Your task to perform on an android device: toggle pop-ups in chrome Image 0: 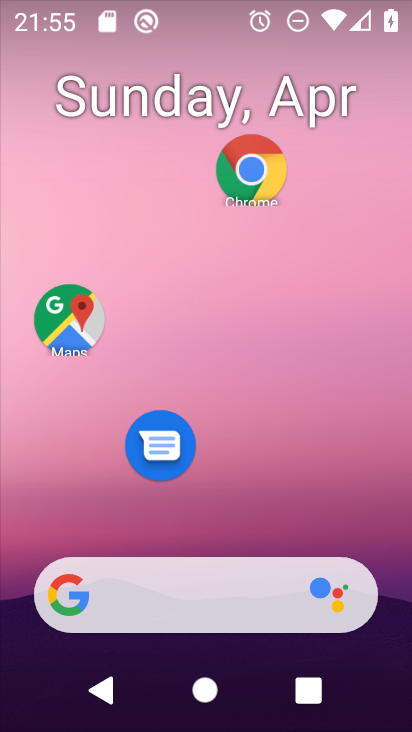
Step 0: drag from (246, 494) to (230, 42)
Your task to perform on an android device: toggle pop-ups in chrome Image 1: 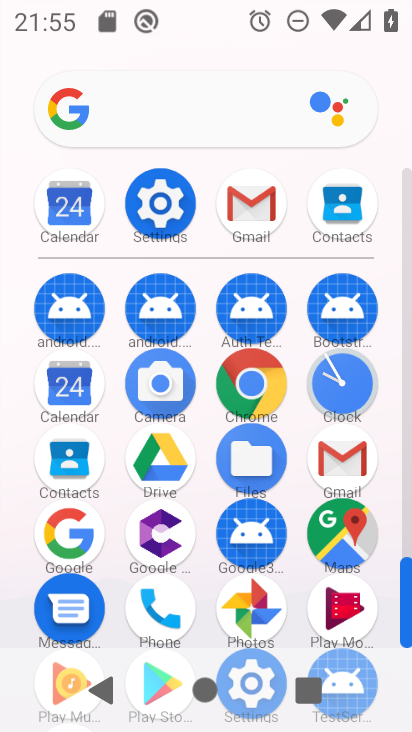
Step 1: drag from (206, 416) to (204, 274)
Your task to perform on an android device: toggle pop-ups in chrome Image 2: 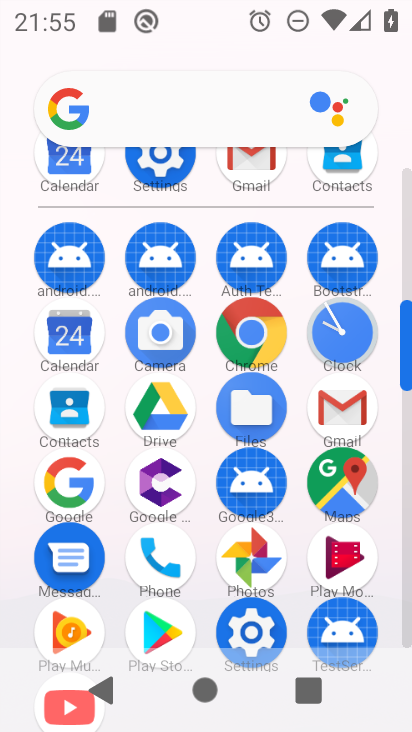
Step 2: click (256, 327)
Your task to perform on an android device: toggle pop-ups in chrome Image 3: 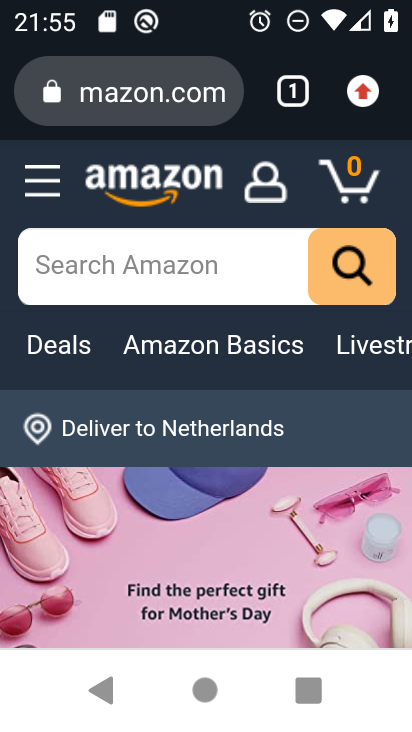
Step 3: click (363, 94)
Your task to perform on an android device: toggle pop-ups in chrome Image 4: 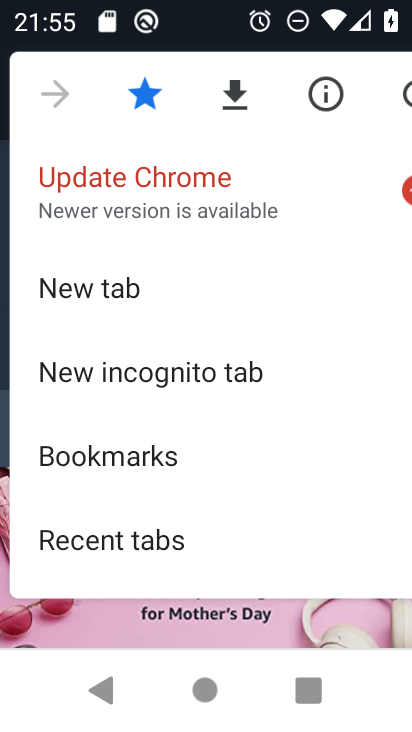
Step 4: drag from (234, 529) to (256, 35)
Your task to perform on an android device: toggle pop-ups in chrome Image 5: 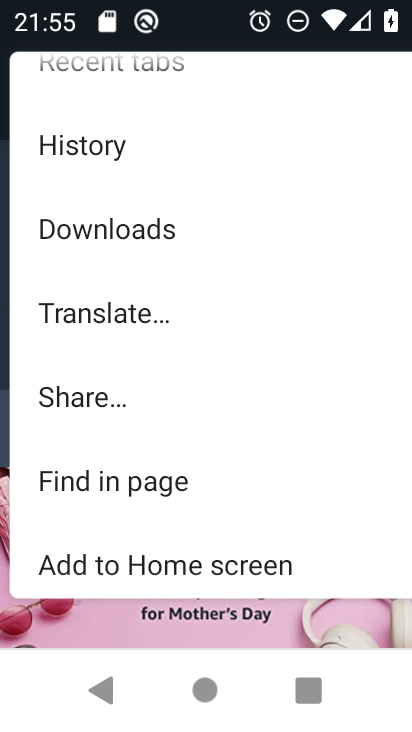
Step 5: drag from (173, 536) to (218, 167)
Your task to perform on an android device: toggle pop-ups in chrome Image 6: 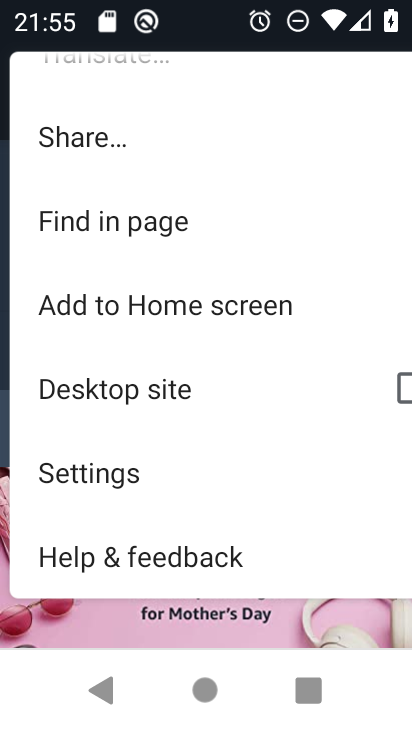
Step 6: click (161, 467)
Your task to perform on an android device: toggle pop-ups in chrome Image 7: 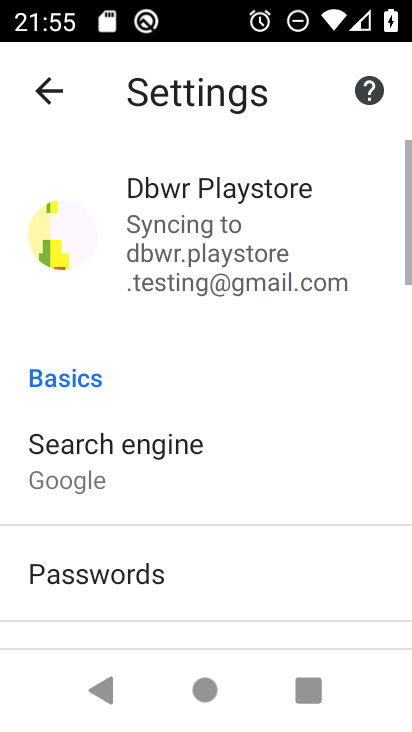
Step 7: drag from (242, 572) to (224, 102)
Your task to perform on an android device: toggle pop-ups in chrome Image 8: 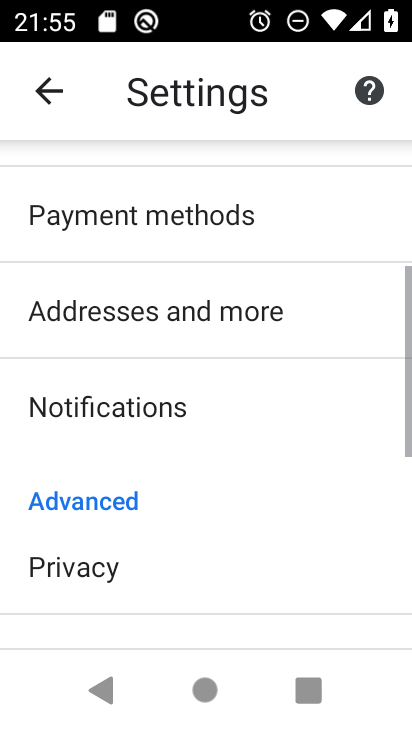
Step 8: drag from (231, 551) to (263, 205)
Your task to perform on an android device: toggle pop-ups in chrome Image 9: 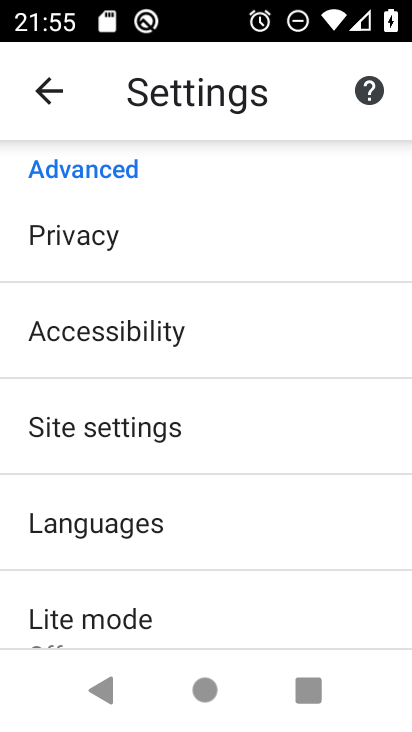
Step 9: click (89, 430)
Your task to perform on an android device: toggle pop-ups in chrome Image 10: 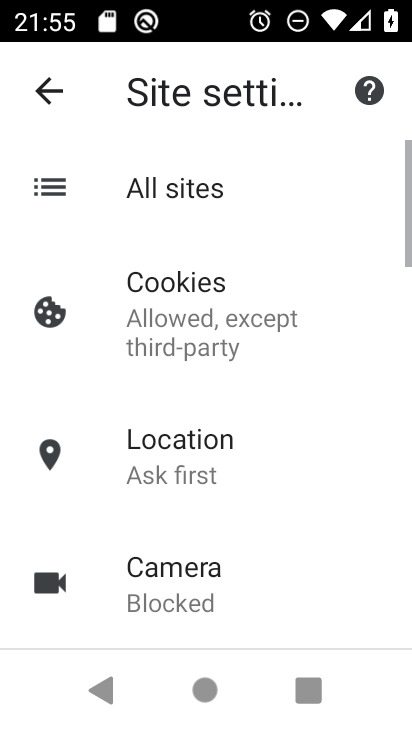
Step 10: drag from (261, 504) to (271, 104)
Your task to perform on an android device: toggle pop-ups in chrome Image 11: 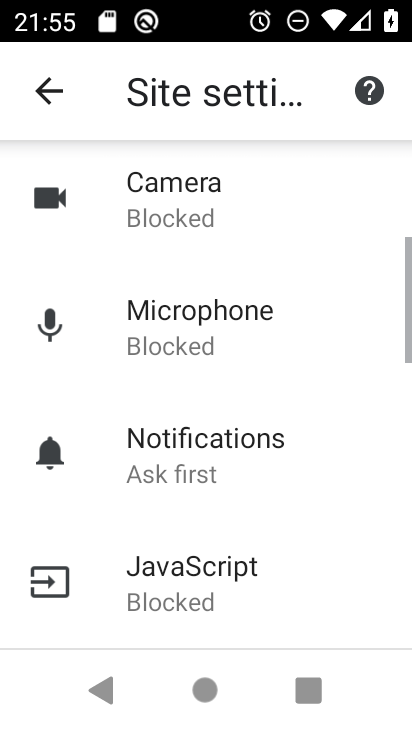
Step 11: drag from (244, 545) to (267, 227)
Your task to perform on an android device: toggle pop-ups in chrome Image 12: 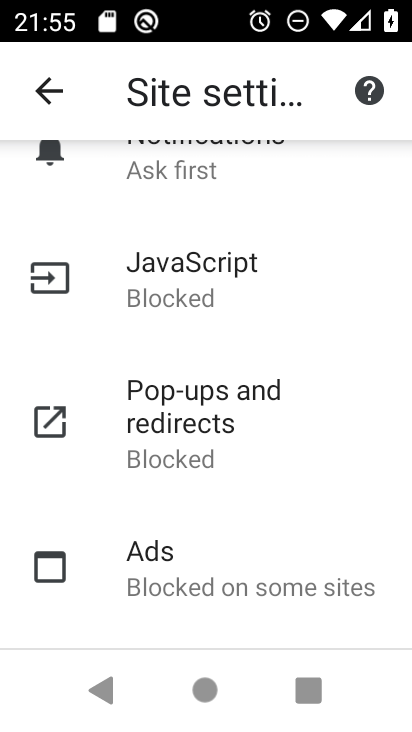
Step 12: click (196, 400)
Your task to perform on an android device: toggle pop-ups in chrome Image 13: 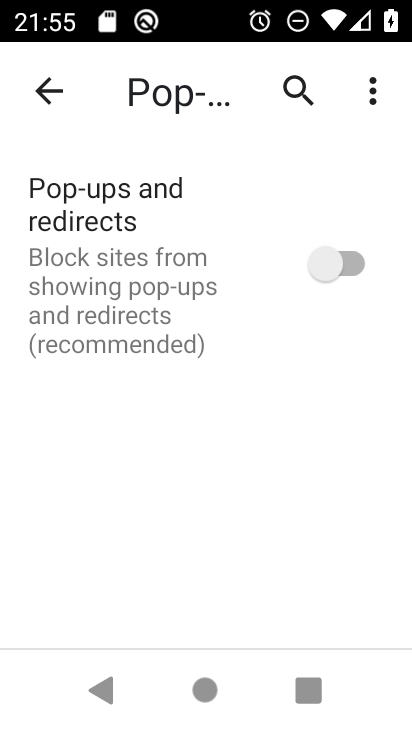
Step 13: click (330, 260)
Your task to perform on an android device: toggle pop-ups in chrome Image 14: 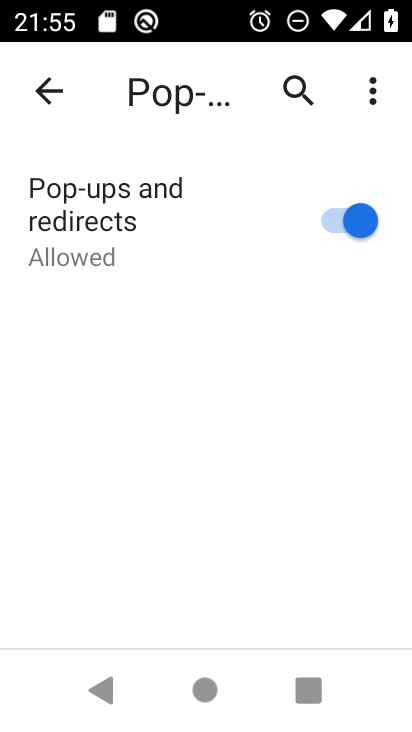
Step 14: task complete